Your task to perform on an android device: turn off airplane mode Image 0: 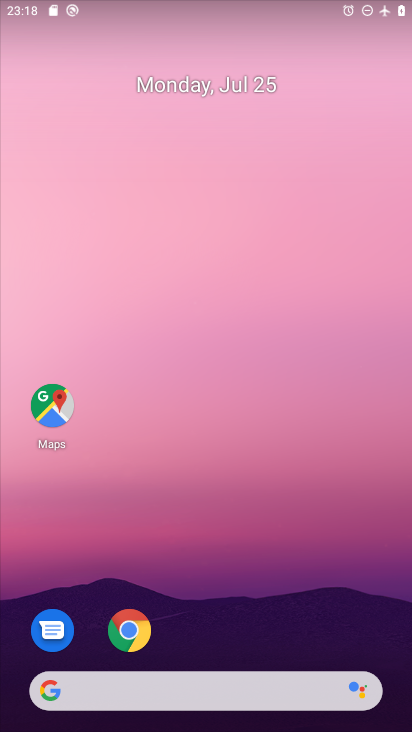
Step 0: drag from (295, 591) to (146, 107)
Your task to perform on an android device: turn off airplane mode Image 1: 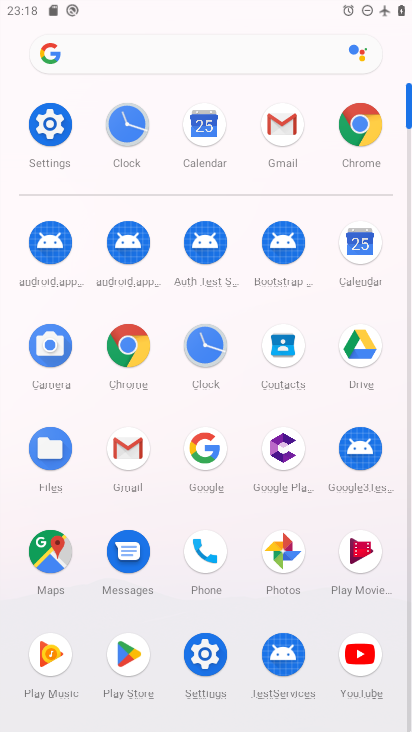
Step 1: click (33, 125)
Your task to perform on an android device: turn off airplane mode Image 2: 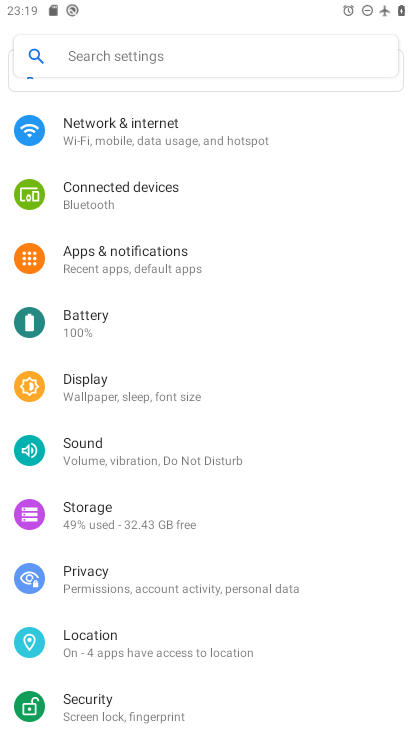
Step 2: click (144, 128)
Your task to perform on an android device: turn off airplane mode Image 3: 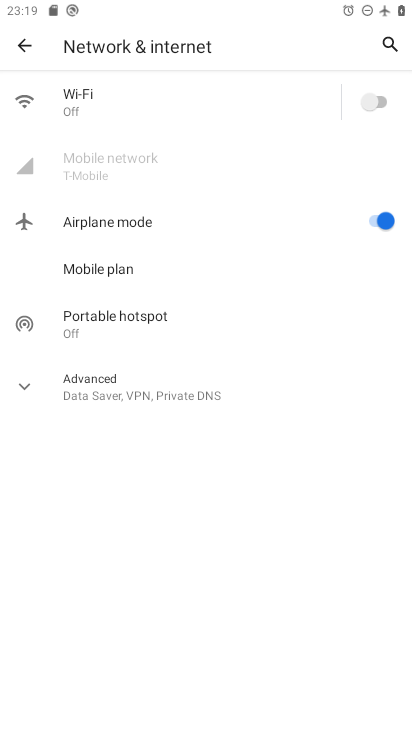
Step 3: click (369, 216)
Your task to perform on an android device: turn off airplane mode Image 4: 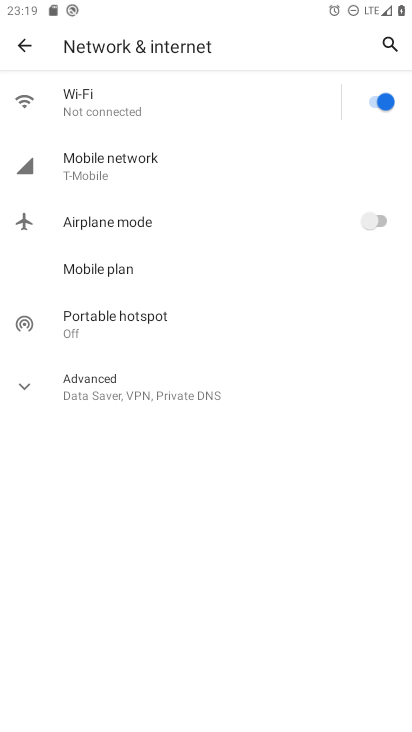
Step 4: task complete